Your task to perform on an android device: Open calendar and show me the fourth week of next month Image 0: 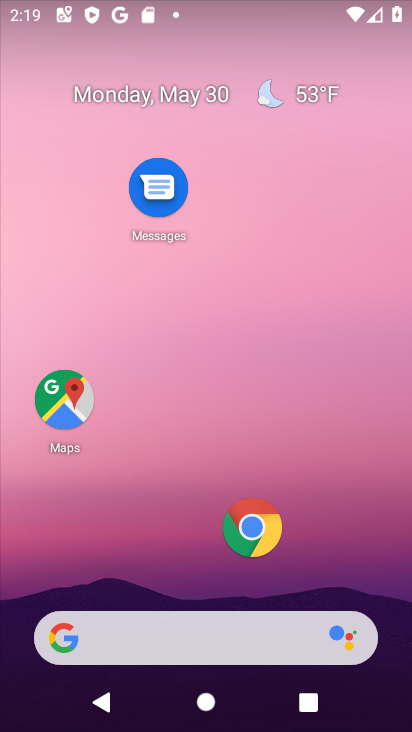
Step 0: drag from (183, 567) to (303, 103)
Your task to perform on an android device: Open calendar and show me the fourth week of next month Image 1: 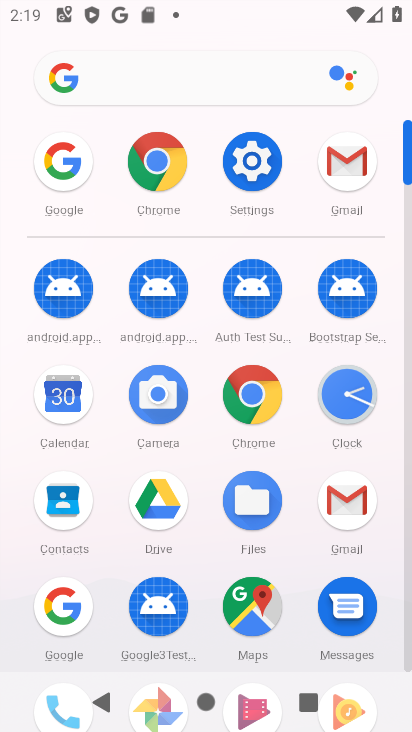
Step 1: click (58, 401)
Your task to perform on an android device: Open calendar and show me the fourth week of next month Image 2: 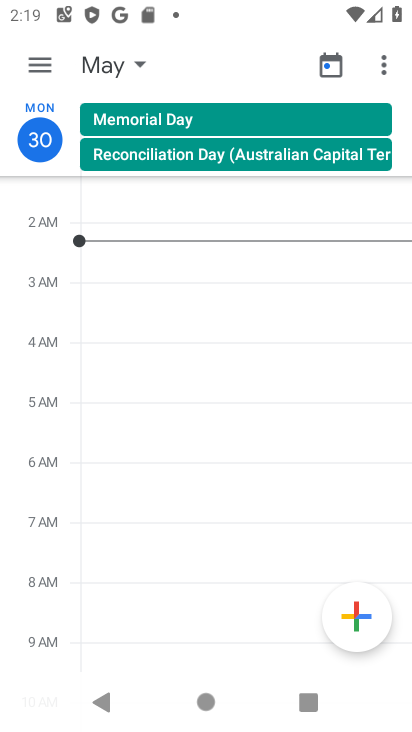
Step 2: click (115, 64)
Your task to perform on an android device: Open calendar and show me the fourth week of next month Image 3: 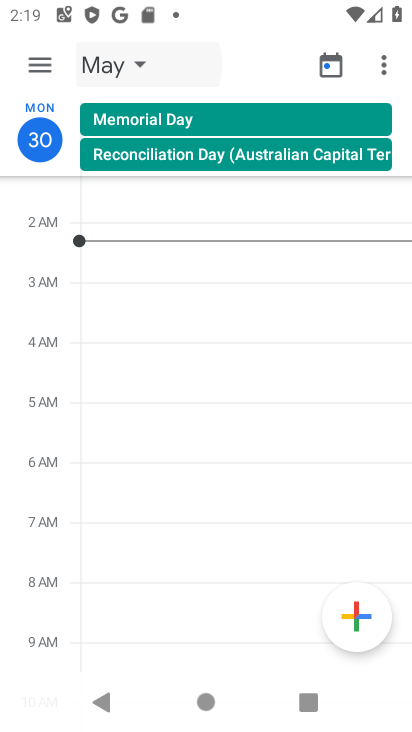
Step 3: click (55, 65)
Your task to perform on an android device: Open calendar and show me the fourth week of next month Image 4: 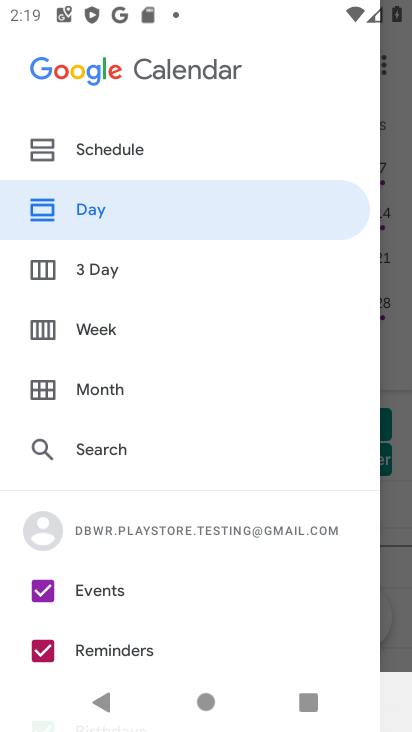
Step 4: click (50, 68)
Your task to perform on an android device: Open calendar and show me the fourth week of next month Image 5: 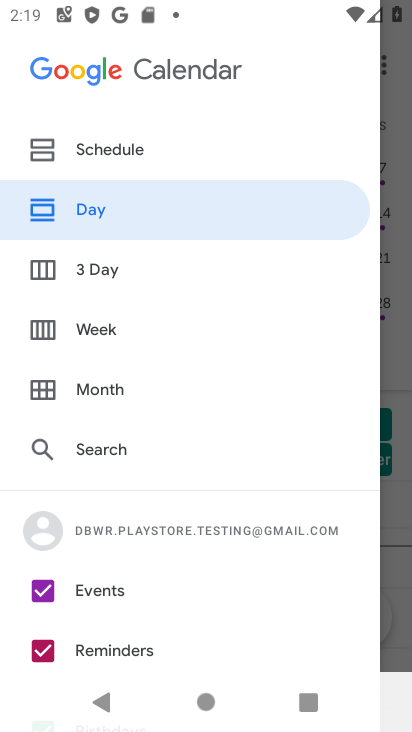
Step 5: click (130, 335)
Your task to perform on an android device: Open calendar and show me the fourth week of next month Image 6: 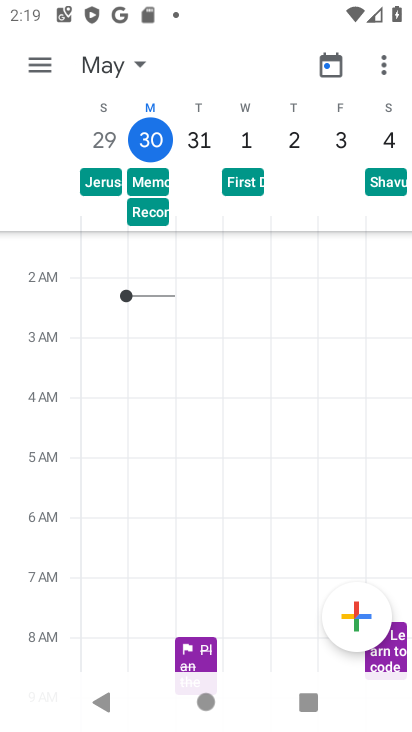
Step 6: drag from (313, 143) to (0, 151)
Your task to perform on an android device: Open calendar and show me the fourth week of next month Image 7: 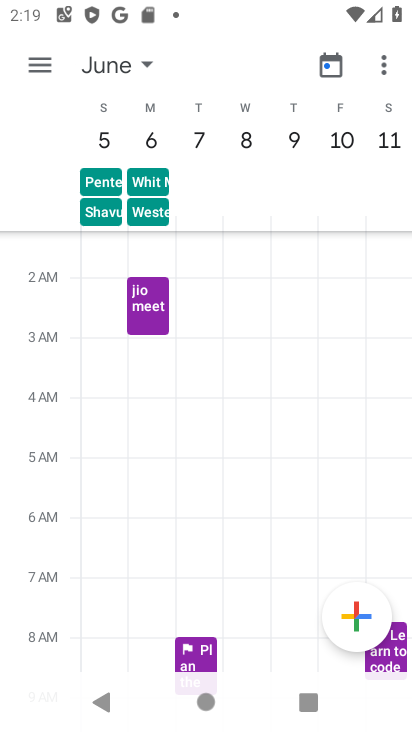
Step 7: click (132, 80)
Your task to perform on an android device: Open calendar and show me the fourth week of next month Image 8: 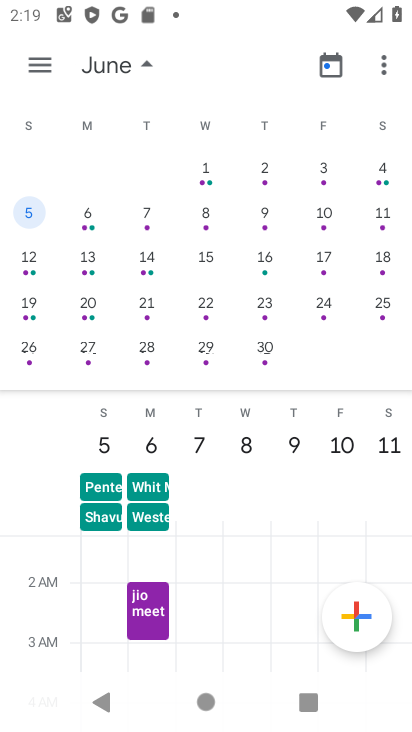
Step 8: click (143, 71)
Your task to perform on an android device: Open calendar and show me the fourth week of next month Image 9: 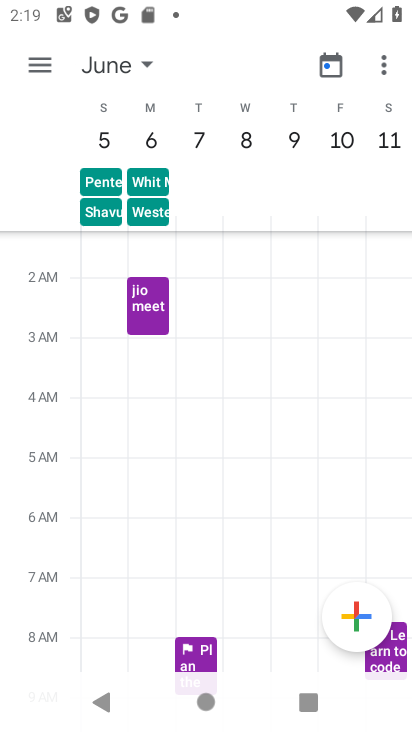
Step 9: click (31, 308)
Your task to perform on an android device: Open calendar and show me the fourth week of next month Image 10: 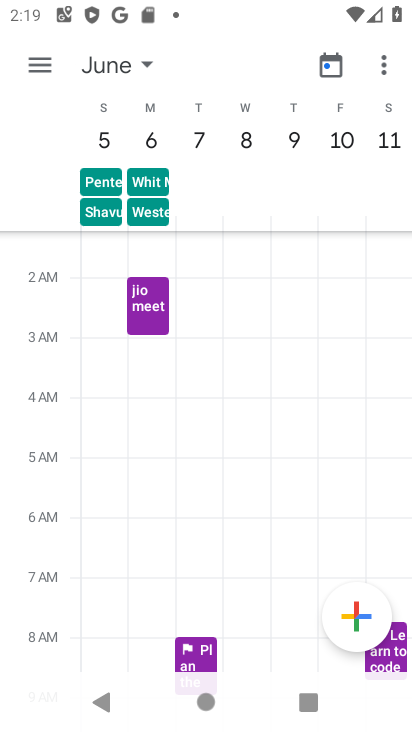
Step 10: click (138, 73)
Your task to perform on an android device: Open calendar and show me the fourth week of next month Image 11: 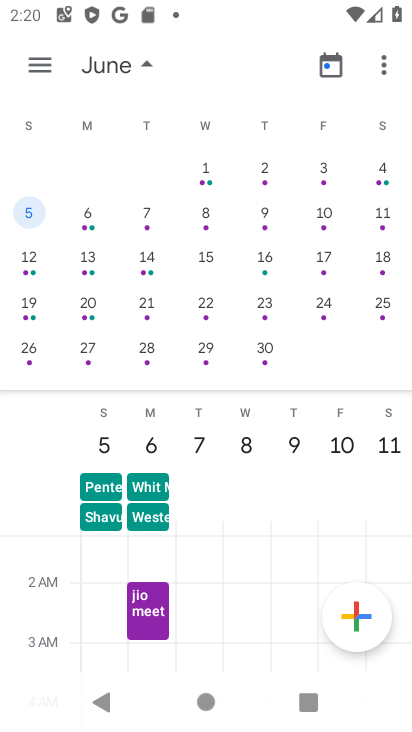
Step 11: click (36, 310)
Your task to perform on an android device: Open calendar and show me the fourth week of next month Image 12: 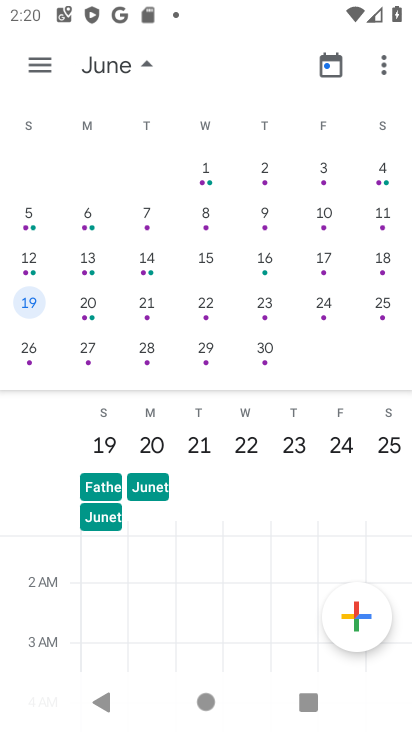
Step 12: task complete